Your task to perform on an android device: turn off javascript in the chrome app Image 0: 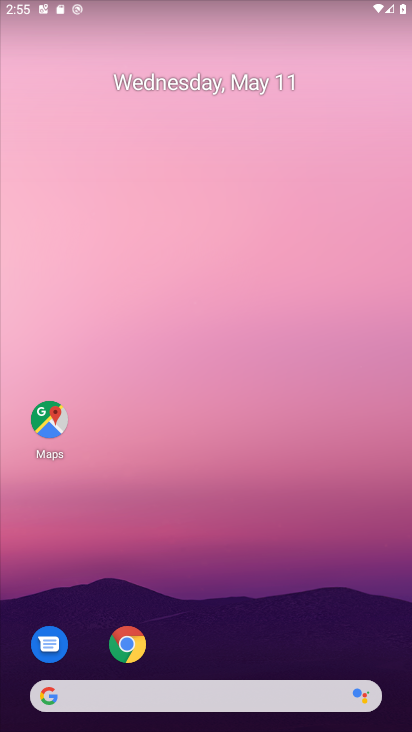
Step 0: drag from (192, 678) to (152, 31)
Your task to perform on an android device: turn off javascript in the chrome app Image 1: 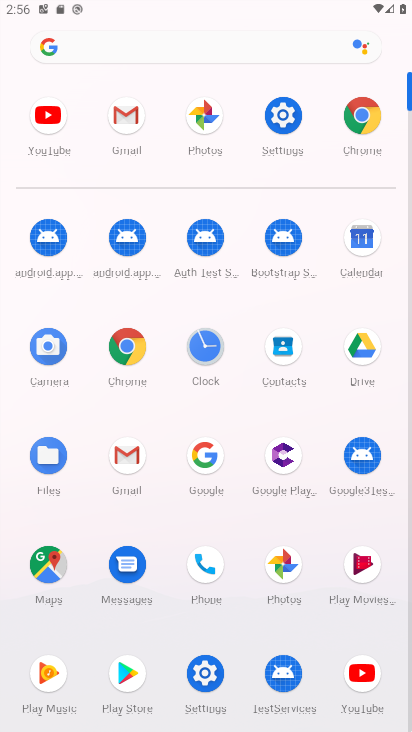
Step 1: click (126, 350)
Your task to perform on an android device: turn off javascript in the chrome app Image 2: 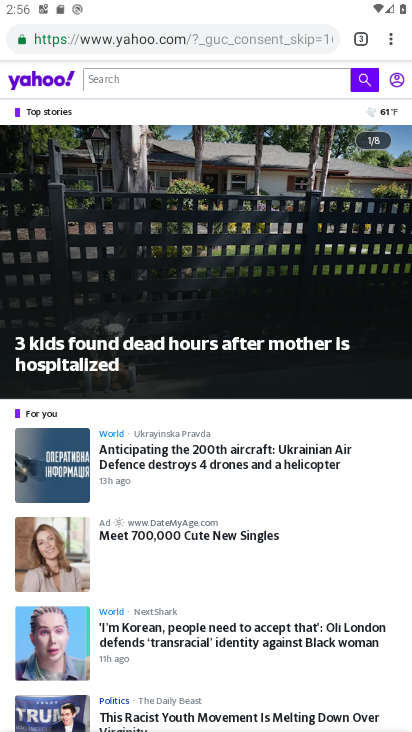
Step 2: drag from (392, 40) to (255, 474)
Your task to perform on an android device: turn off javascript in the chrome app Image 3: 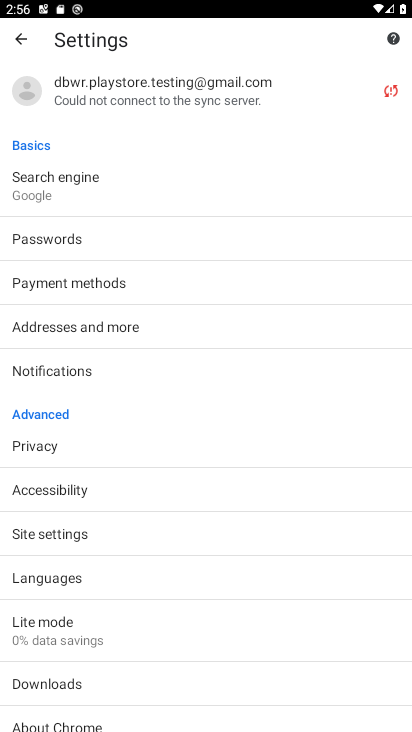
Step 3: click (34, 532)
Your task to perform on an android device: turn off javascript in the chrome app Image 4: 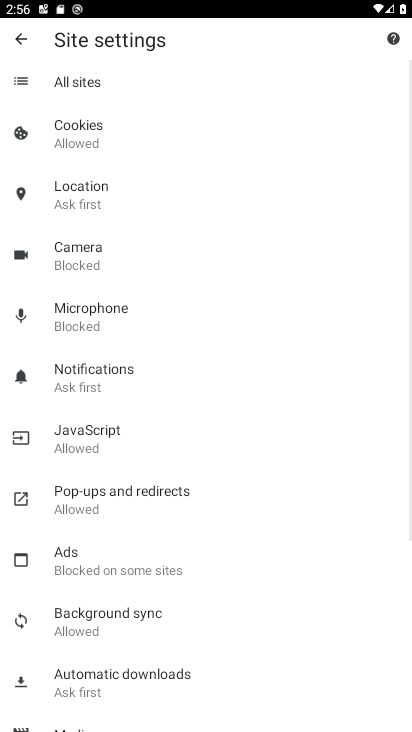
Step 4: click (86, 439)
Your task to perform on an android device: turn off javascript in the chrome app Image 5: 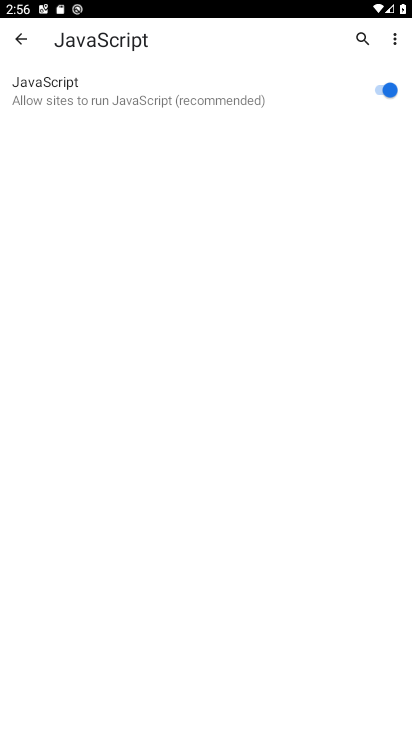
Step 5: click (382, 86)
Your task to perform on an android device: turn off javascript in the chrome app Image 6: 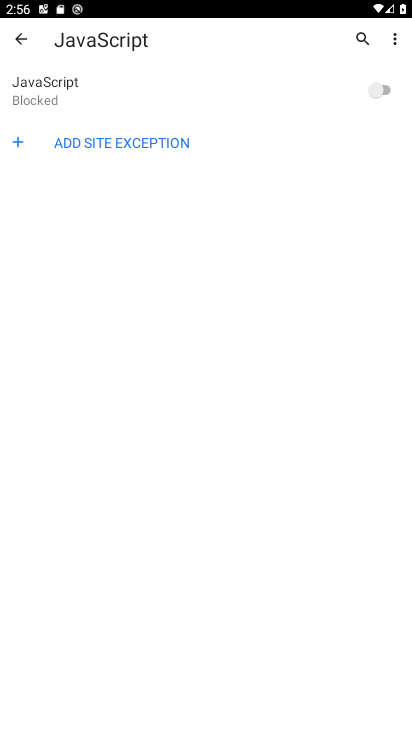
Step 6: task complete